Your task to perform on an android device: toggle airplane mode Image 0: 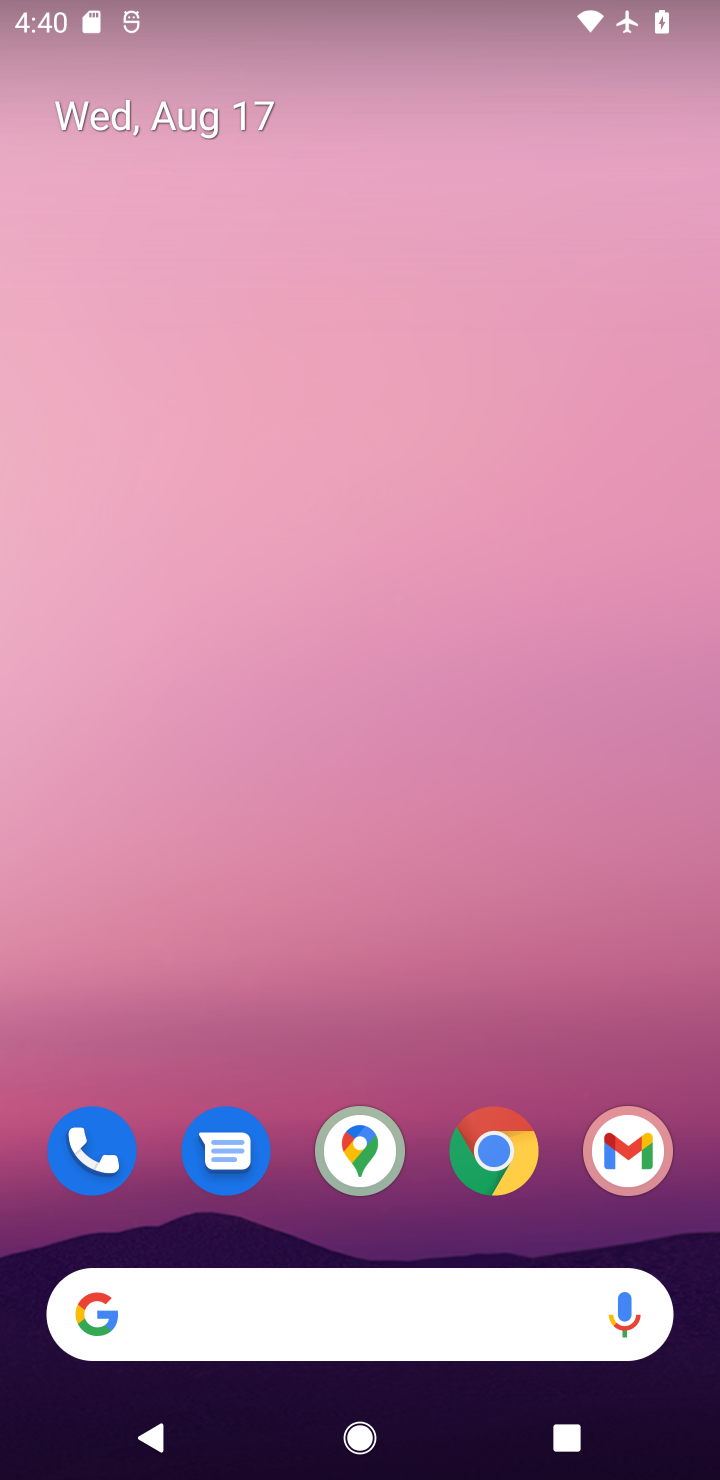
Step 0: drag from (172, 1274) to (403, 0)
Your task to perform on an android device: toggle airplane mode Image 1: 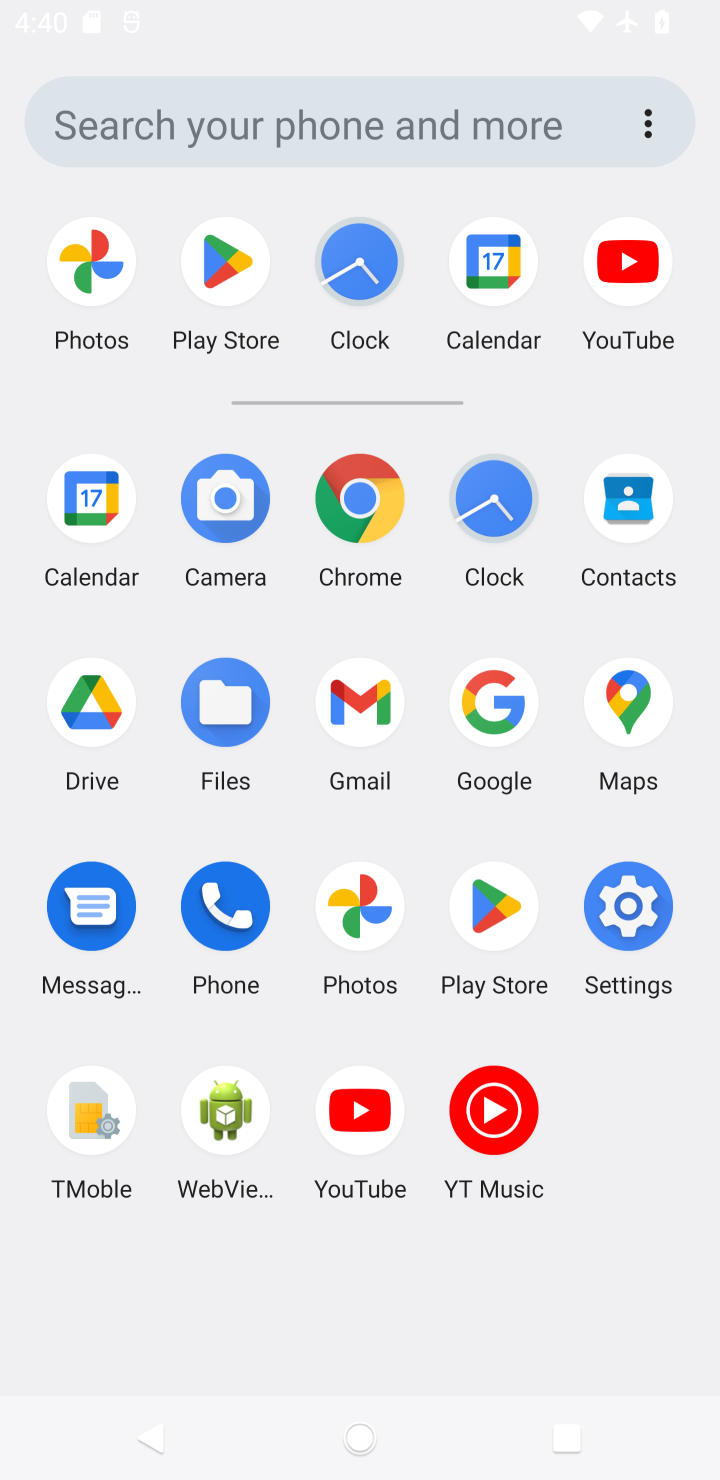
Step 1: drag from (512, 1278) to (555, 39)
Your task to perform on an android device: toggle airplane mode Image 2: 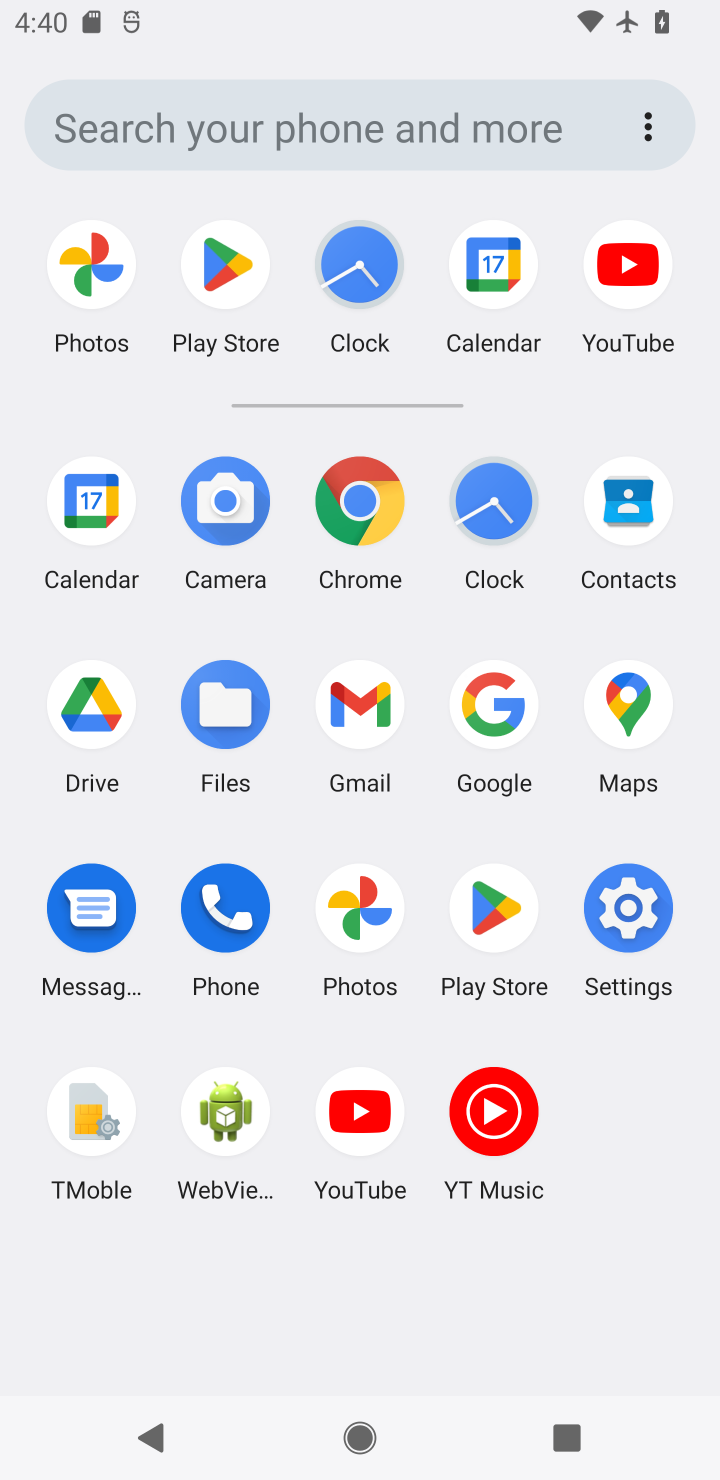
Step 2: click (625, 891)
Your task to perform on an android device: toggle airplane mode Image 3: 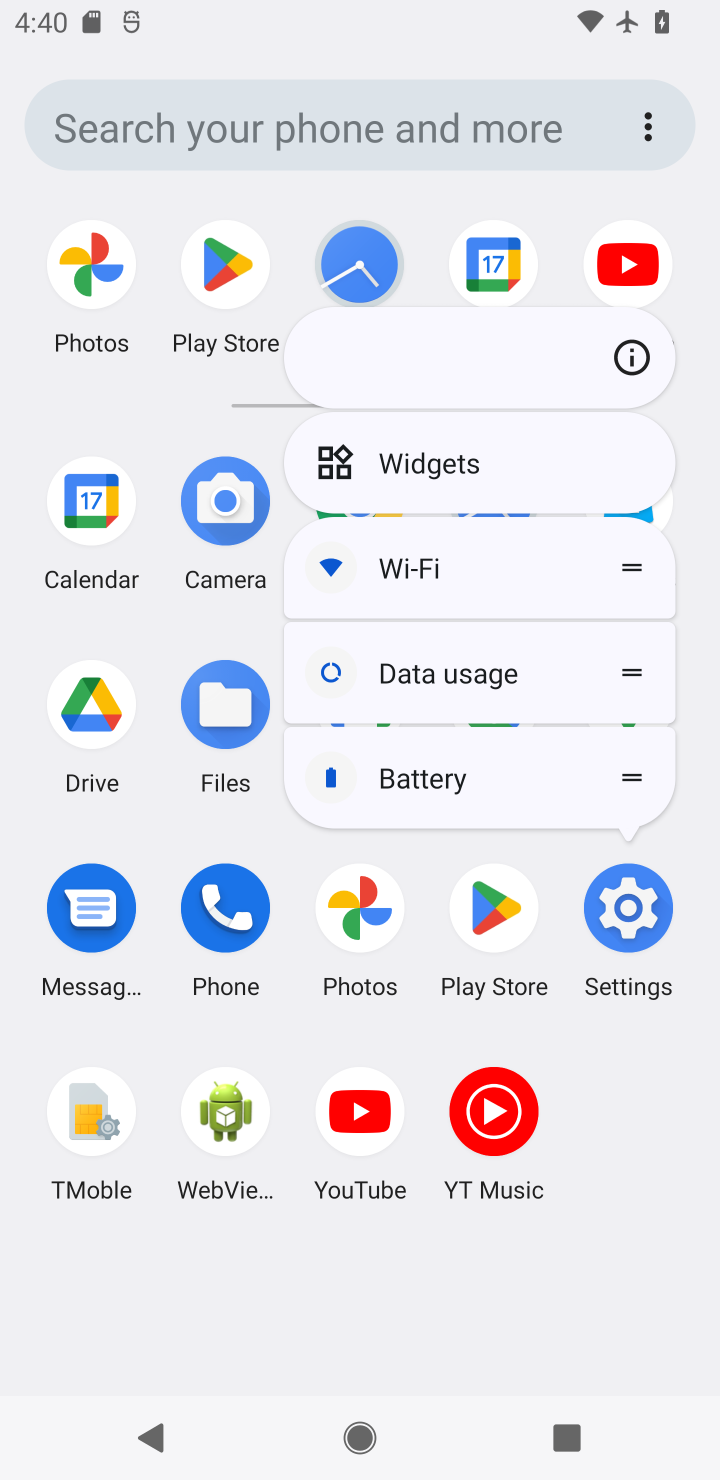
Step 3: click (625, 902)
Your task to perform on an android device: toggle airplane mode Image 4: 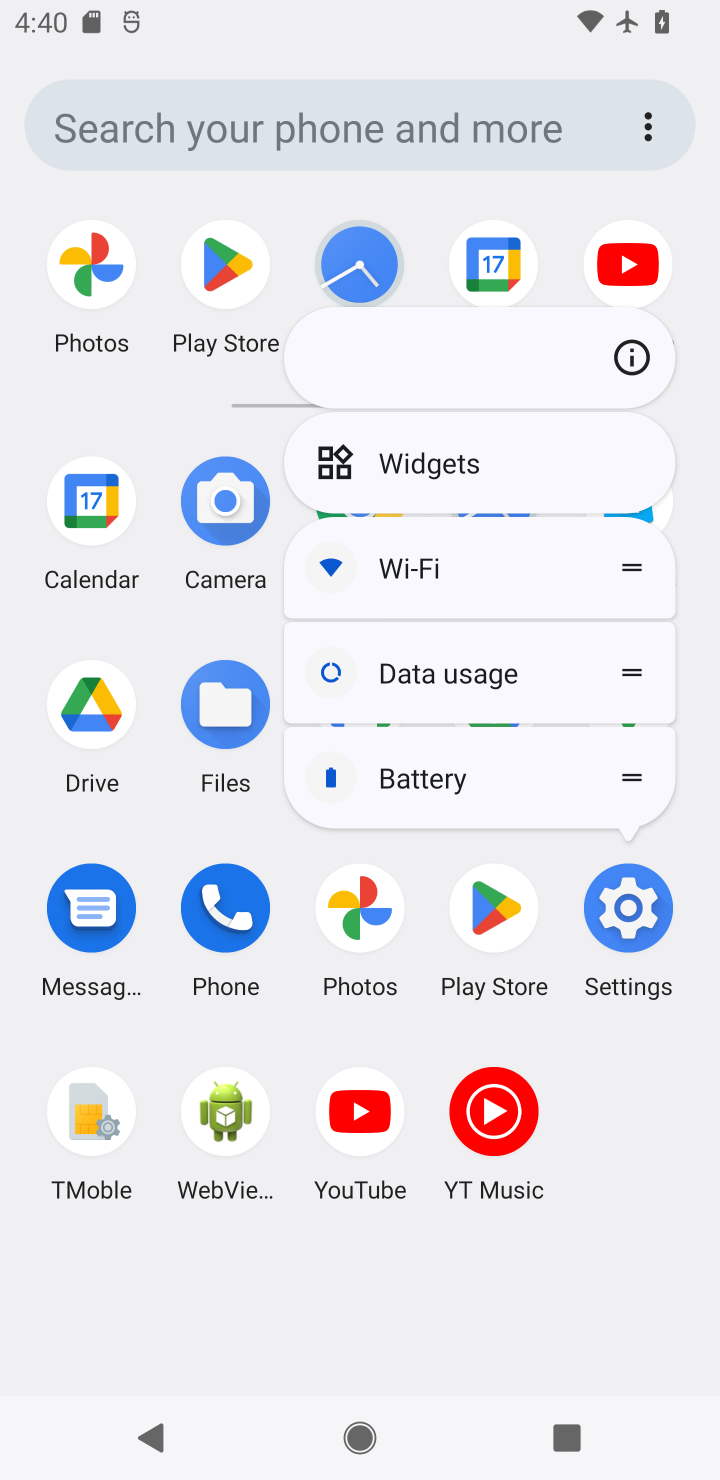
Step 4: click (625, 927)
Your task to perform on an android device: toggle airplane mode Image 5: 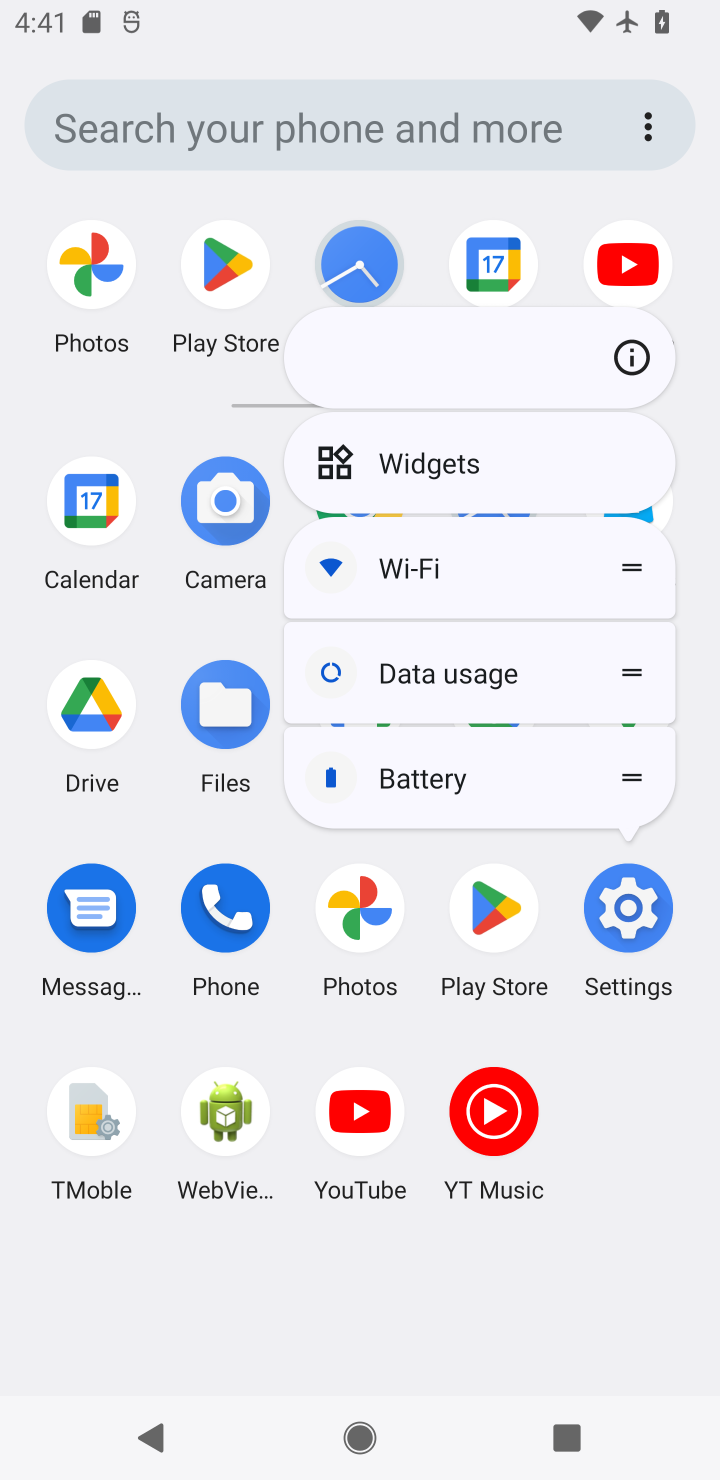
Step 5: click (622, 927)
Your task to perform on an android device: toggle airplane mode Image 6: 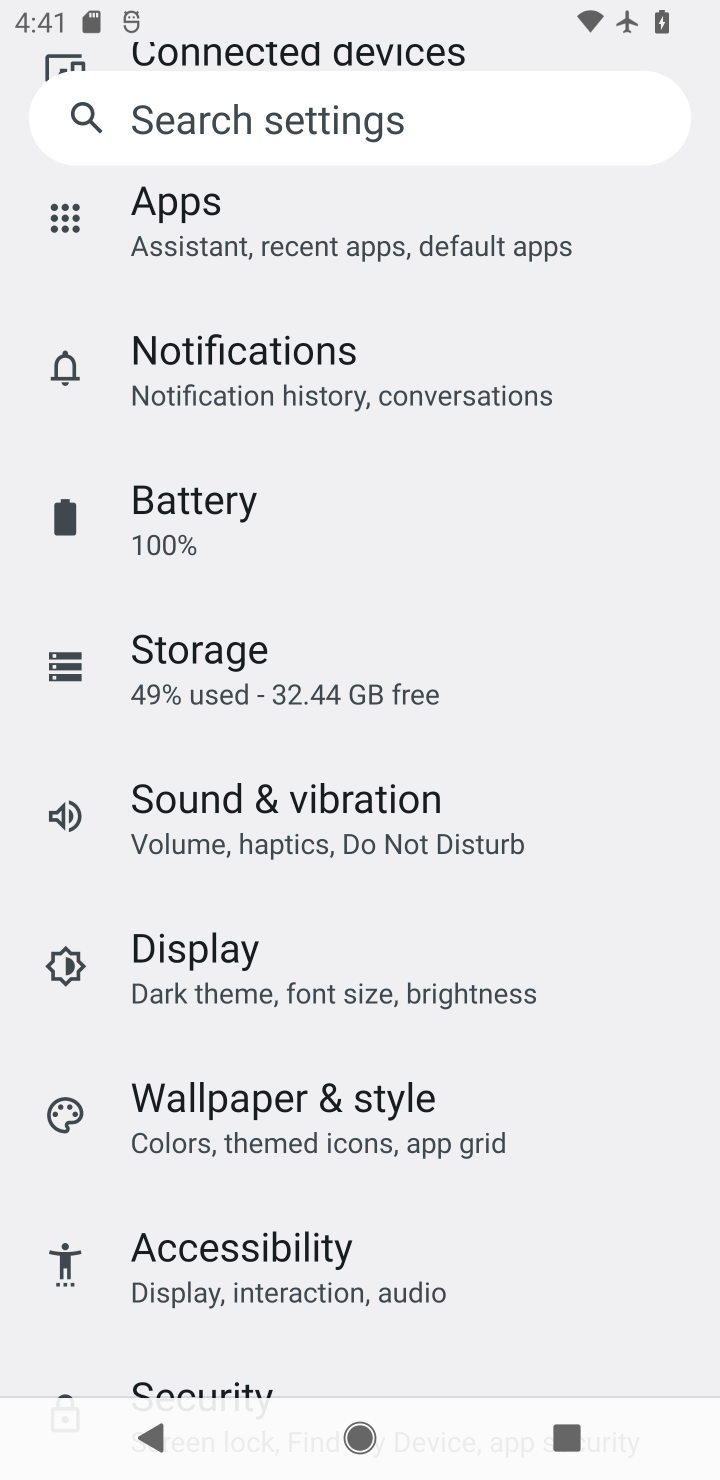
Step 6: drag from (271, 264) to (217, 1454)
Your task to perform on an android device: toggle airplane mode Image 7: 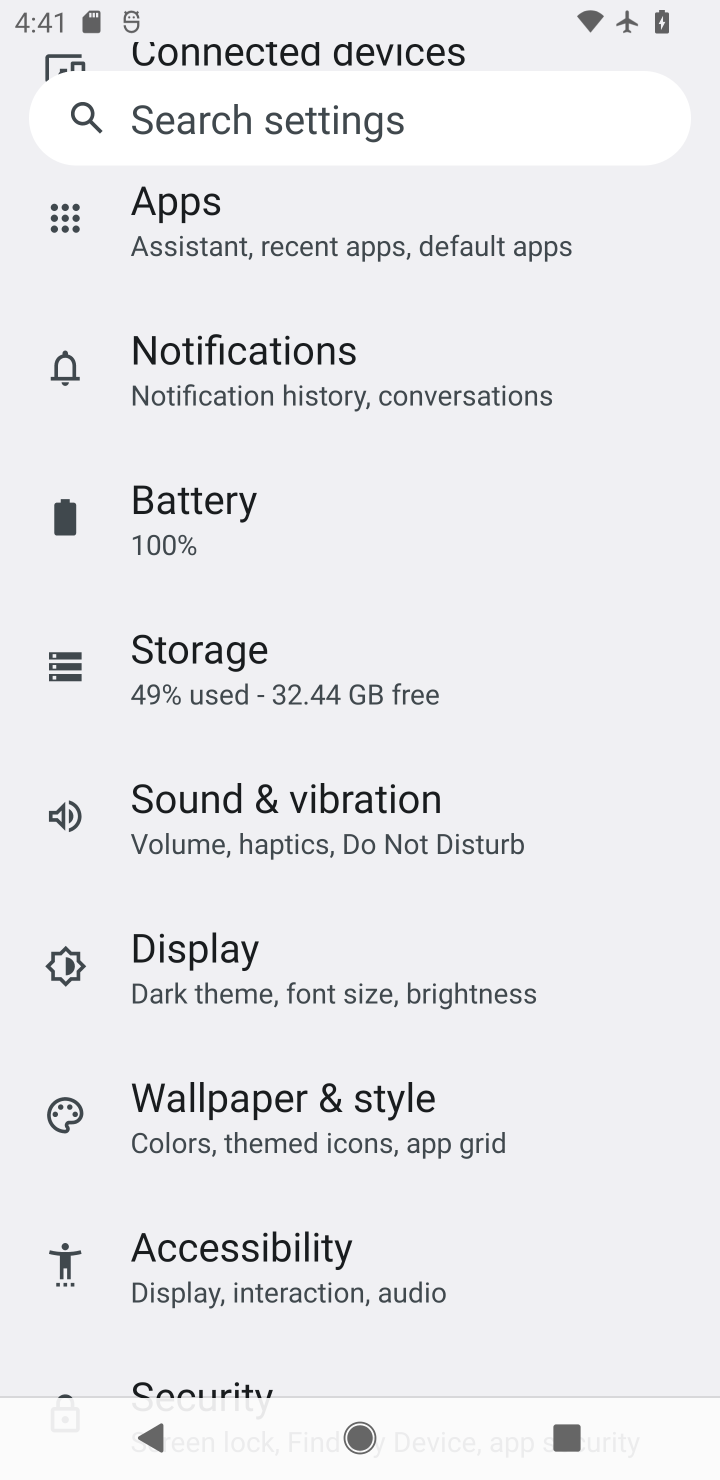
Step 7: drag from (449, 256) to (400, 1275)
Your task to perform on an android device: toggle airplane mode Image 8: 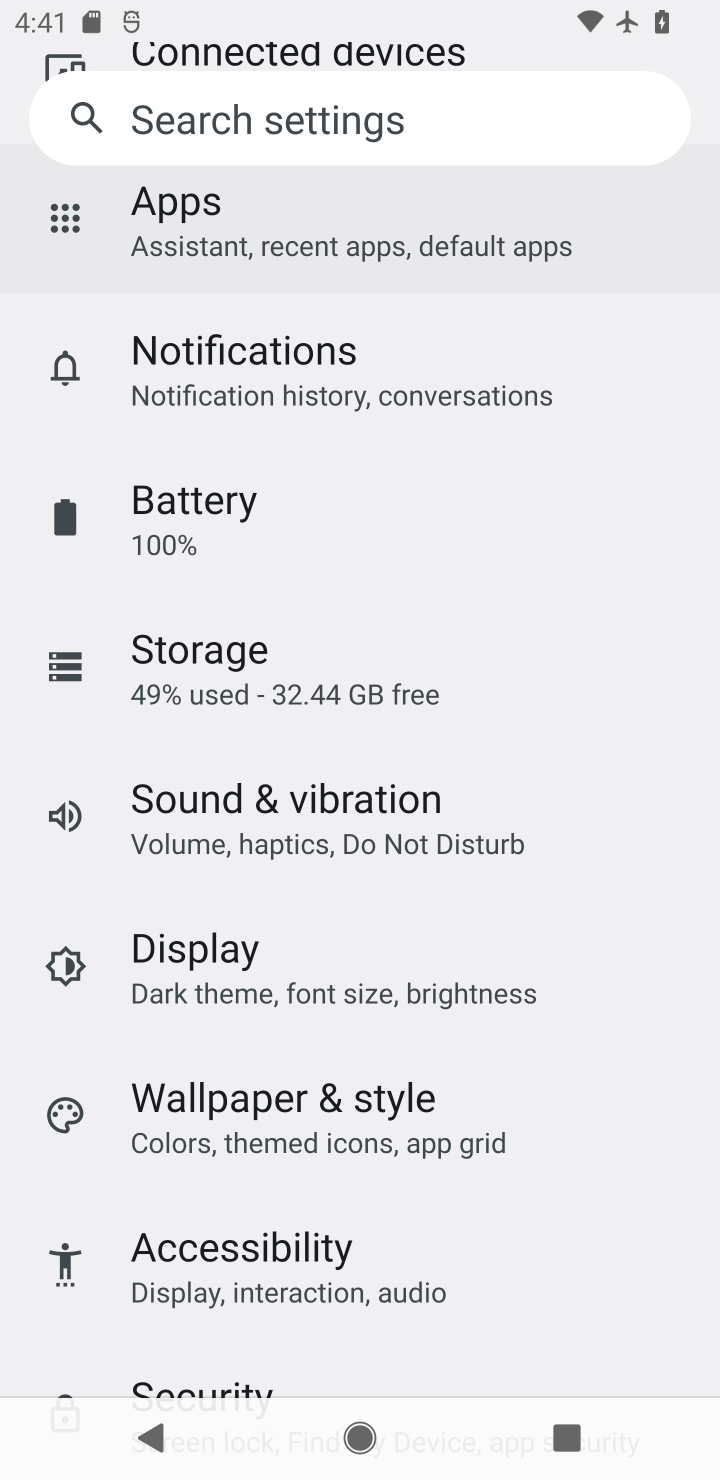
Step 8: drag from (283, 262) to (227, 1364)
Your task to perform on an android device: toggle airplane mode Image 9: 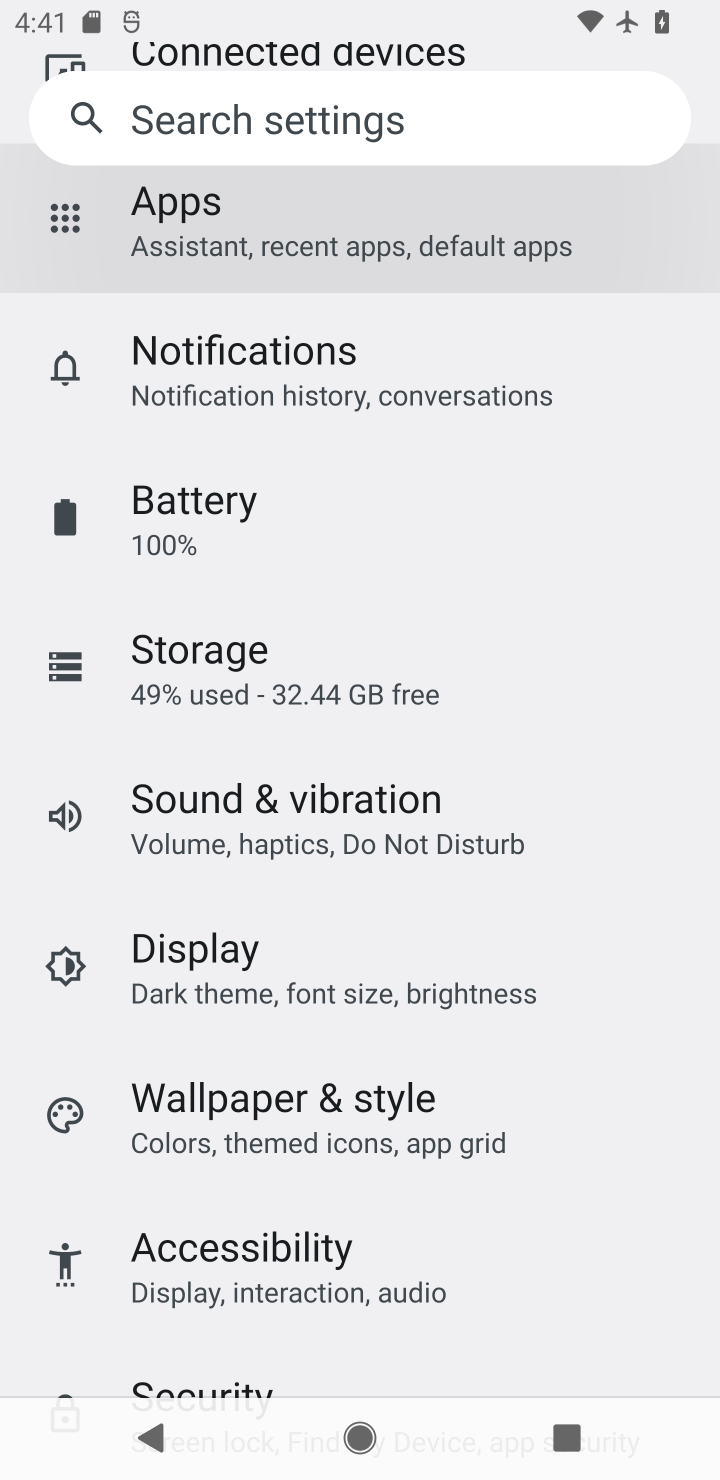
Step 9: drag from (305, 260) to (263, 1413)
Your task to perform on an android device: toggle airplane mode Image 10: 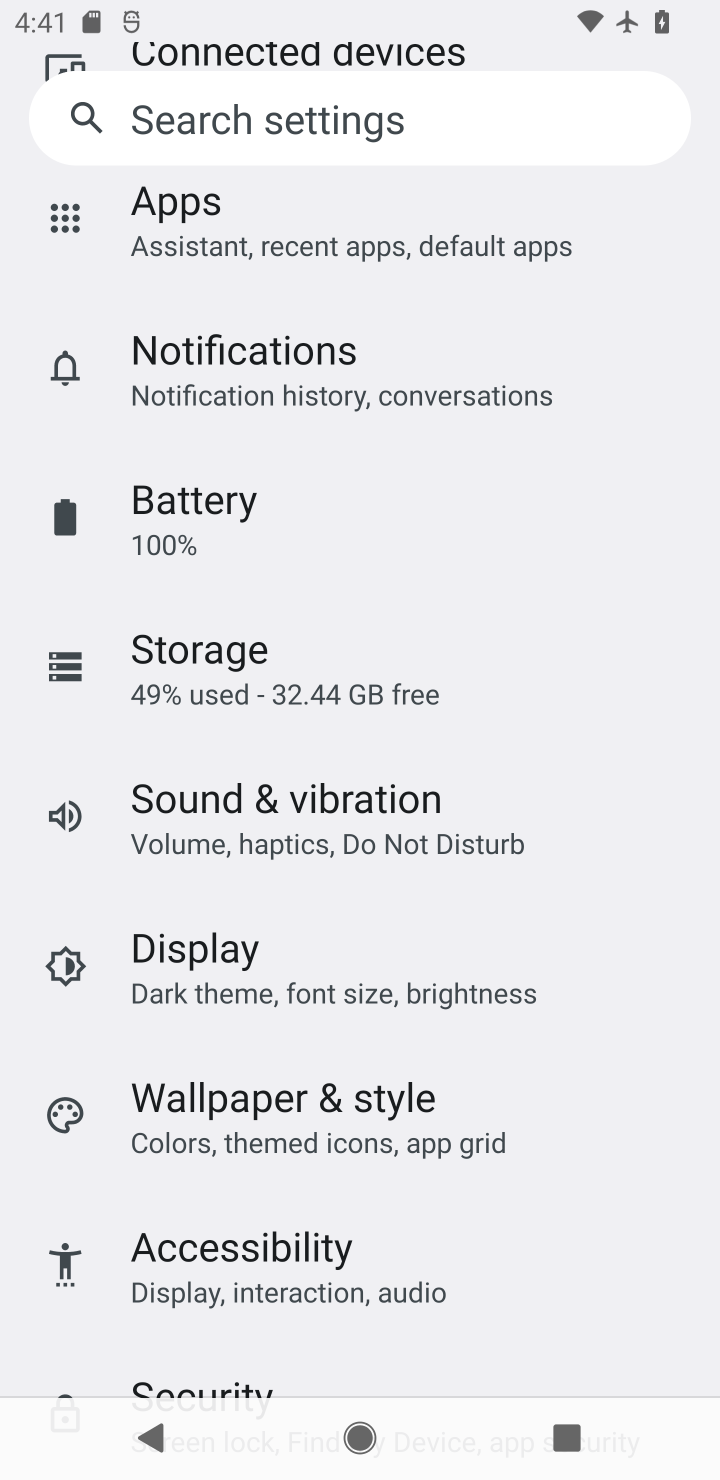
Step 10: drag from (346, 283) to (303, 1346)
Your task to perform on an android device: toggle airplane mode Image 11: 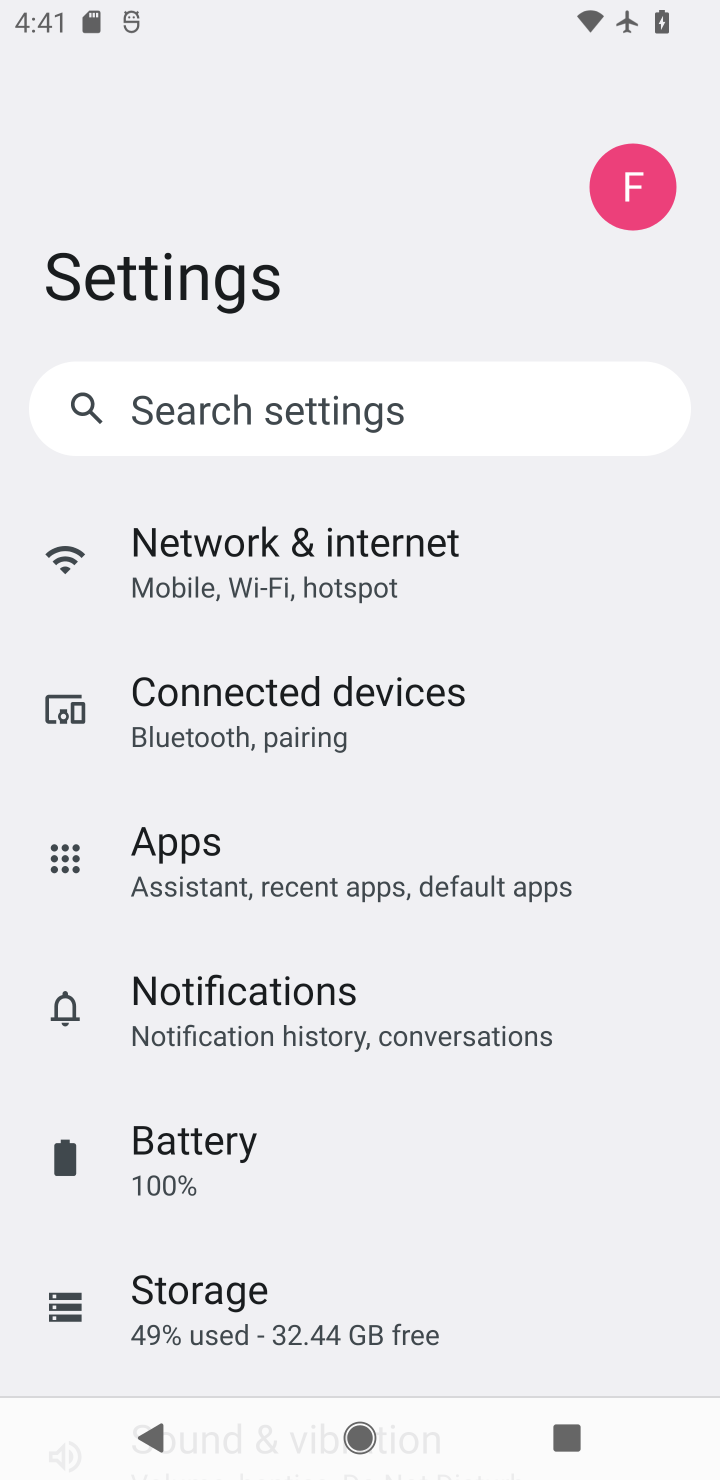
Step 11: click (234, 542)
Your task to perform on an android device: toggle airplane mode Image 12: 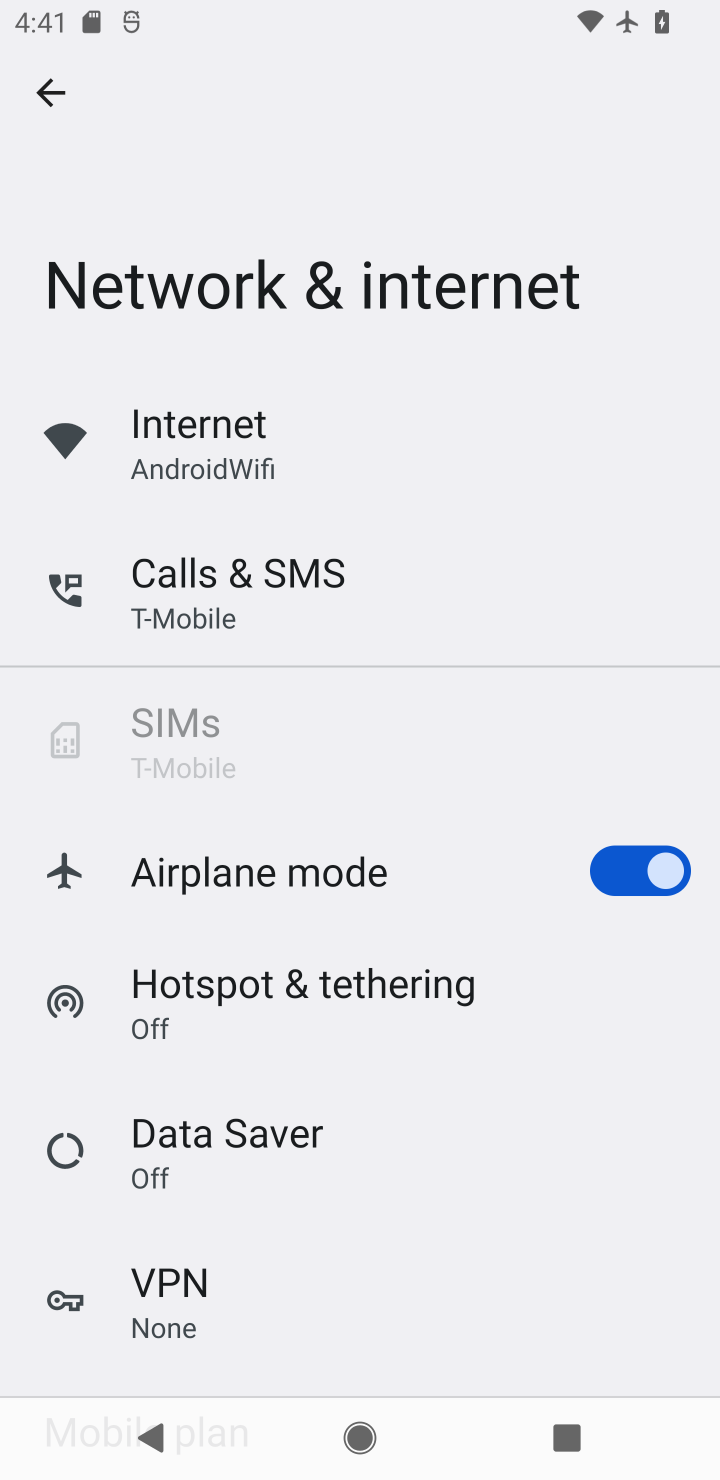
Step 12: click (620, 883)
Your task to perform on an android device: toggle airplane mode Image 13: 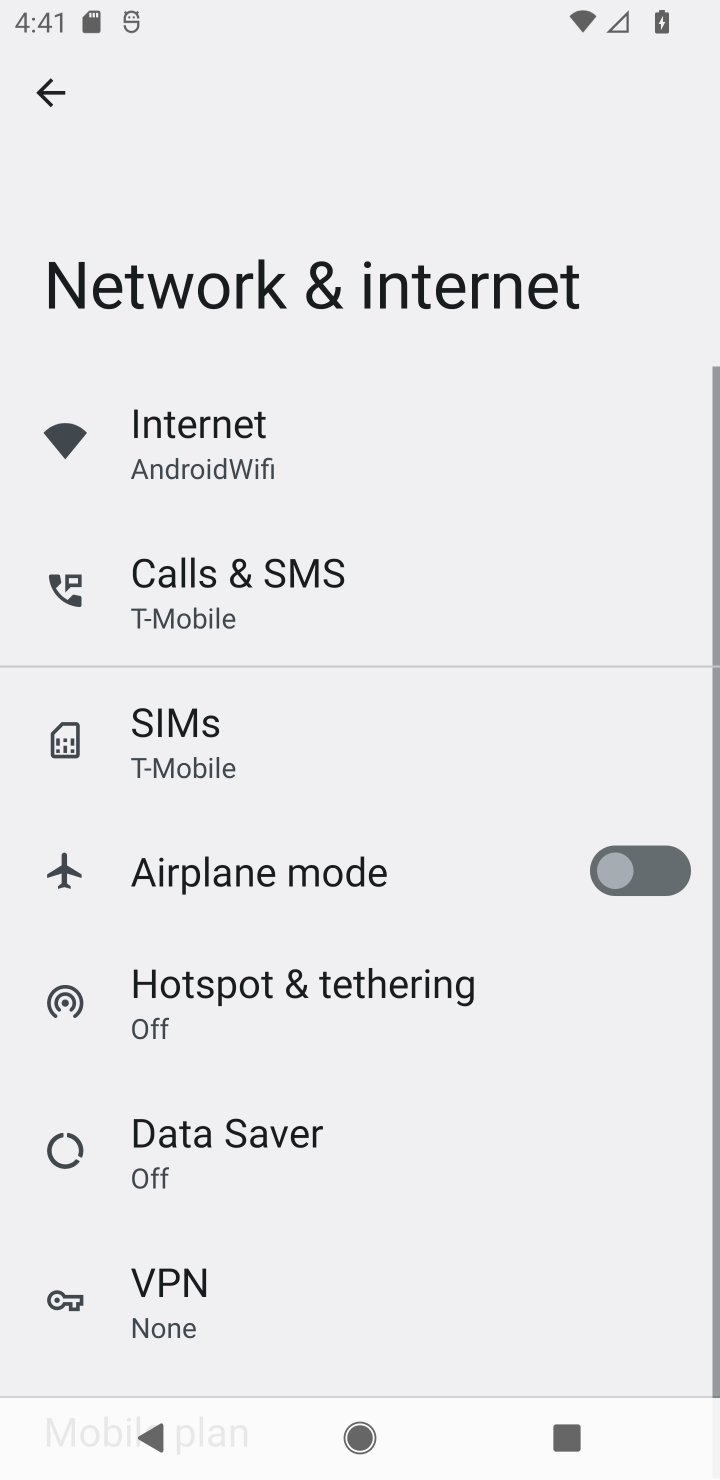
Step 13: task complete